Your task to perform on an android device: open app "ZOOM Cloud Meetings" (install if not already installed) Image 0: 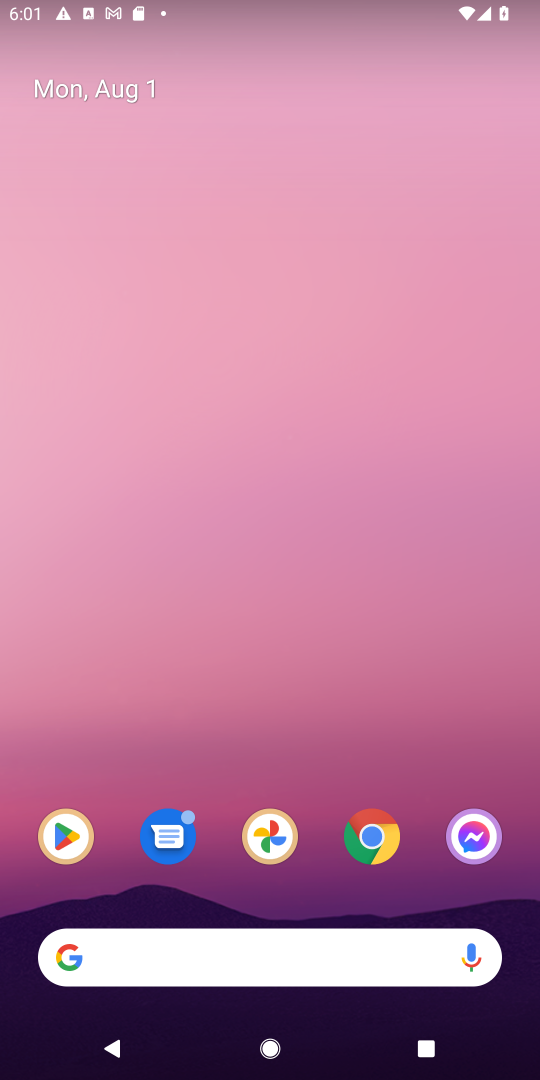
Step 0: press home button
Your task to perform on an android device: open app "ZOOM Cloud Meetings" (install if not already installed) Image 1: 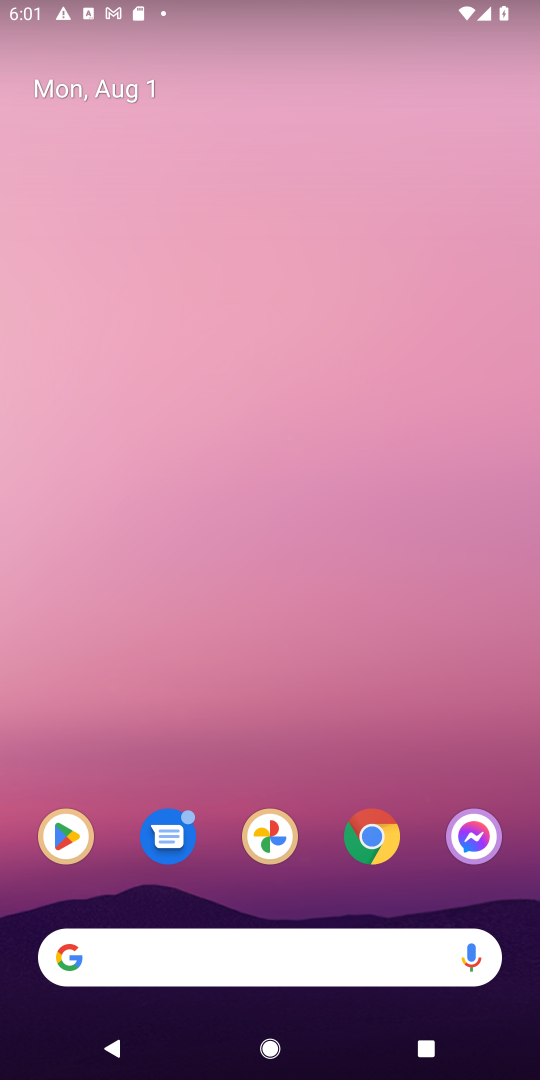
Step 1: click (65, 845)
Your task to perform on an android device: open app "ZOOM Cloud Meetings" (install if not already installed) Image 2: 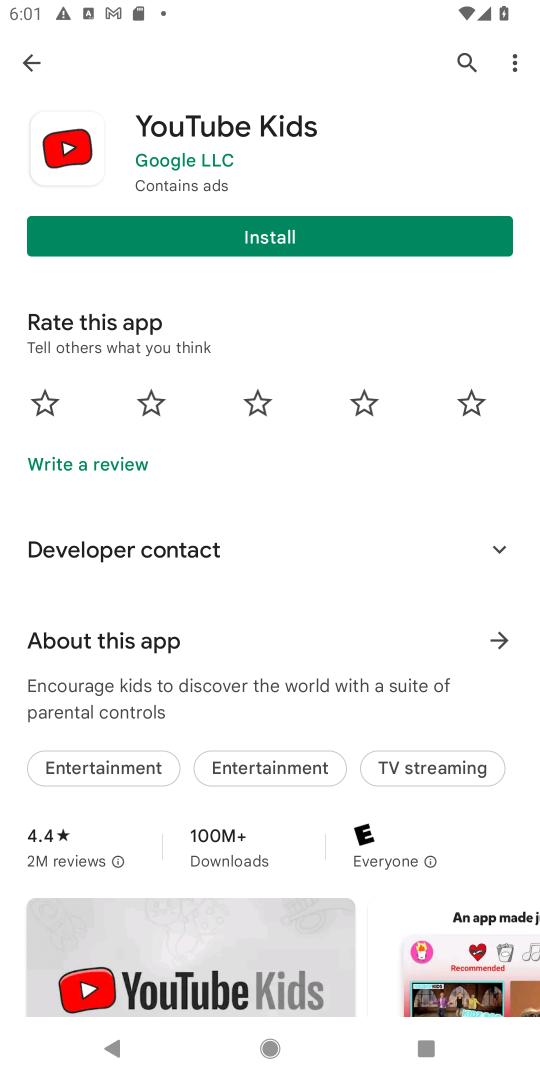
Step 2: click (467, 60)
Your task to perform on an android device: open app "ZOOM Cloud Meetings" (install if not already installed) Image 3: 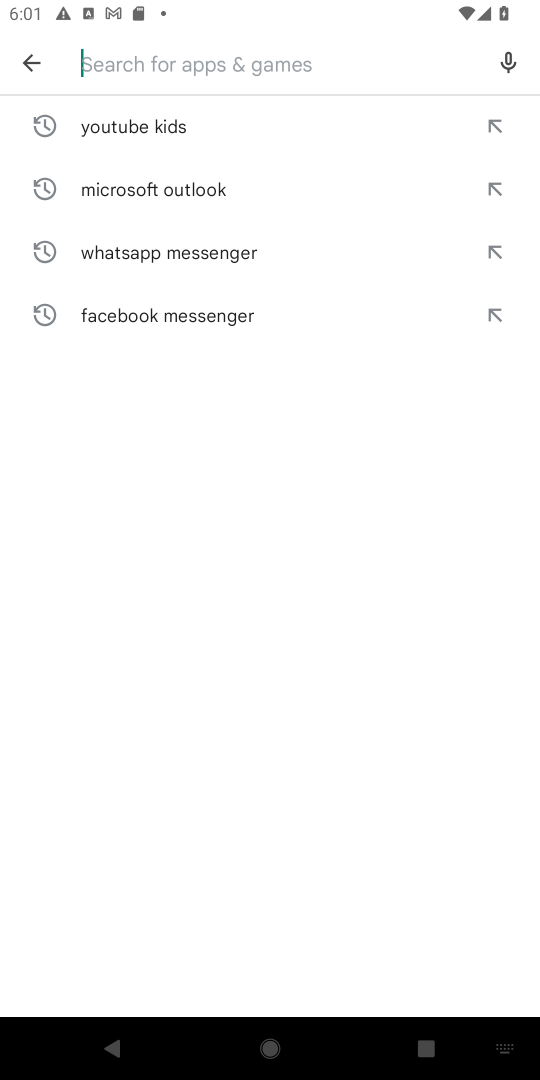
Step 3: type "ZOOM Cloud Meetings"
Your task to perform on an android device: open app "ZOOM Cloud Meetings" (install if not already installed) Image 4: 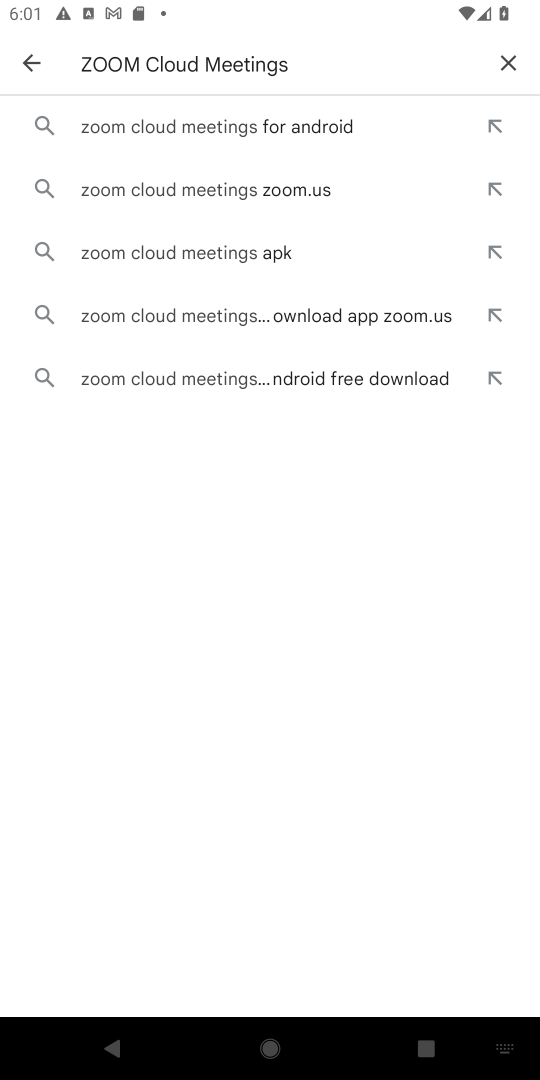
Step 4: click (317, 115)
Your task to perform on an android device: open app "ZOOM Cloud Meetings" (install if not already installed) Image 5: 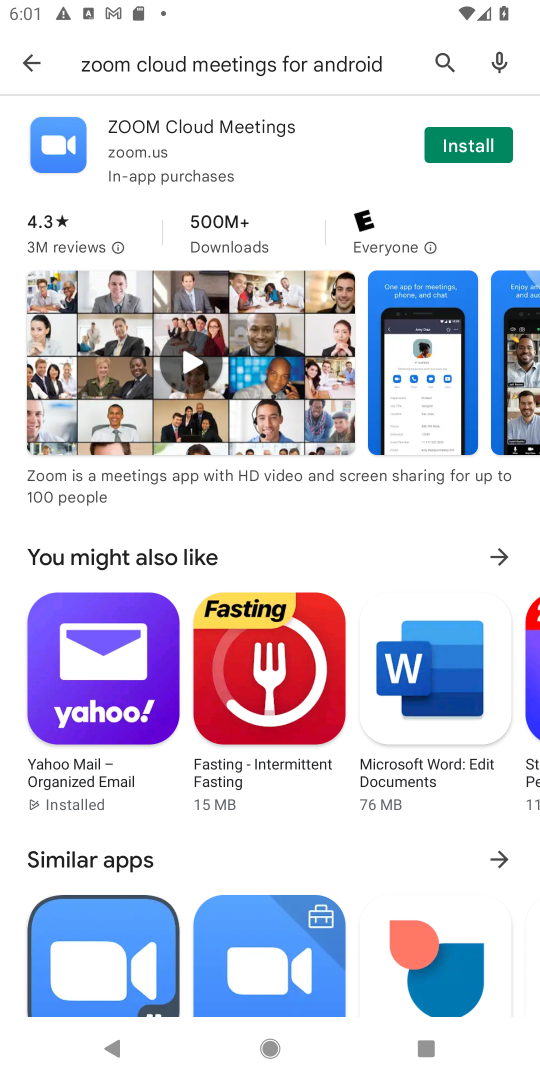
Step 5: click (469, 144)
Your task to perform on an android device: open app "ZOOM Cloud Meetings" (install if not already installed) Image 6: 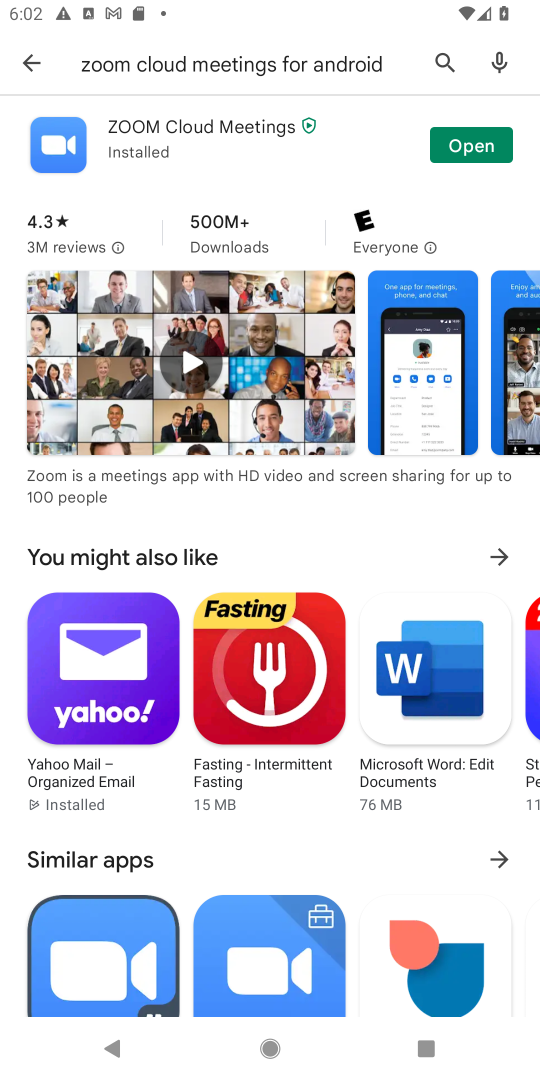
Step 6: click (466, 135)
Your task to perform on an android device: open app "ZOOM Cloud Meetings" (install if not already installed) Image 7: 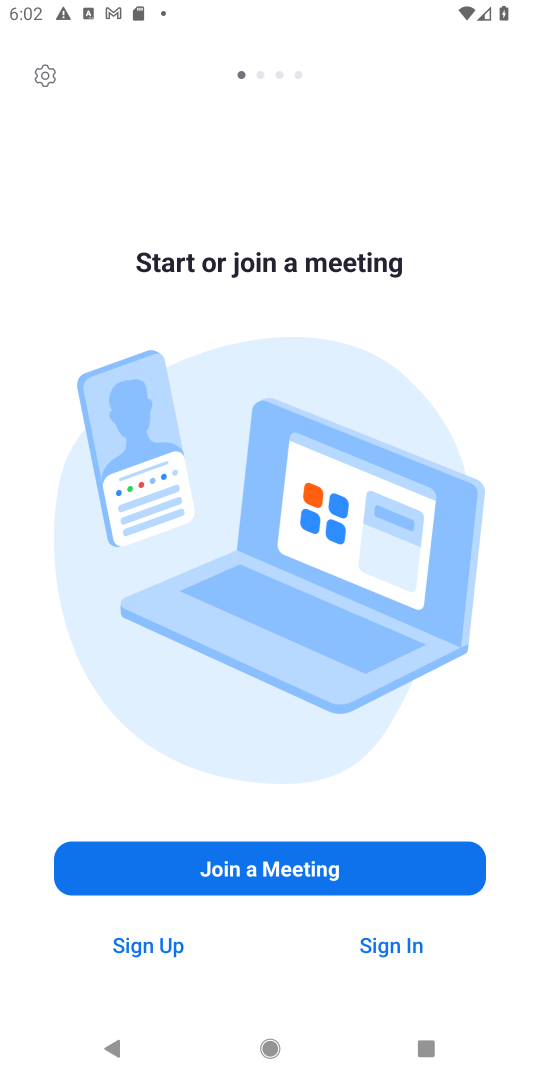
Step 7: task complete